Your task to perform on an android device: Open settings on Google Maps Image 0: 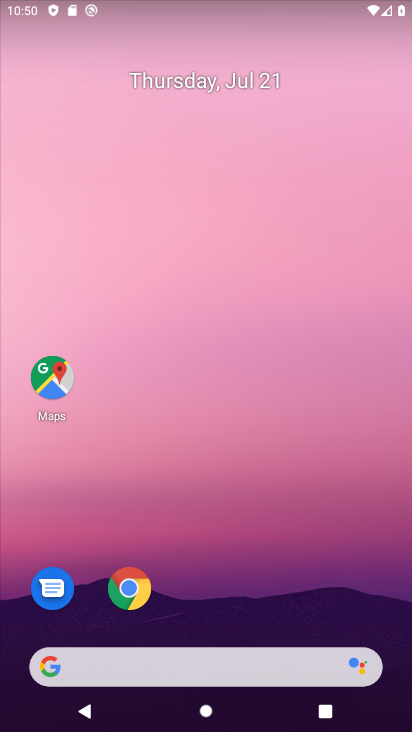
Step 0: drag from (258, 475) to (291, 16)
Your task to perform on an android device: Open settings on Google Maps Image 1: 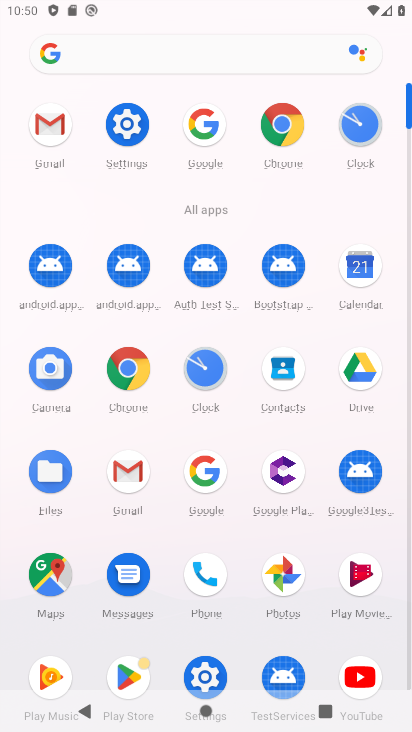
Step 1: click (61, 584)
Your task to perform on an android device: Open settings on Google Maps Image 2: 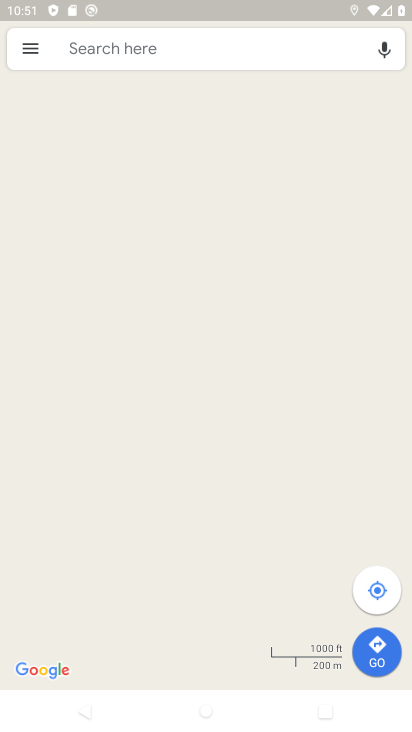
Step 2: click (36, 48)
Your task to perform on an android device: Open settings on Google Maps Image 3: 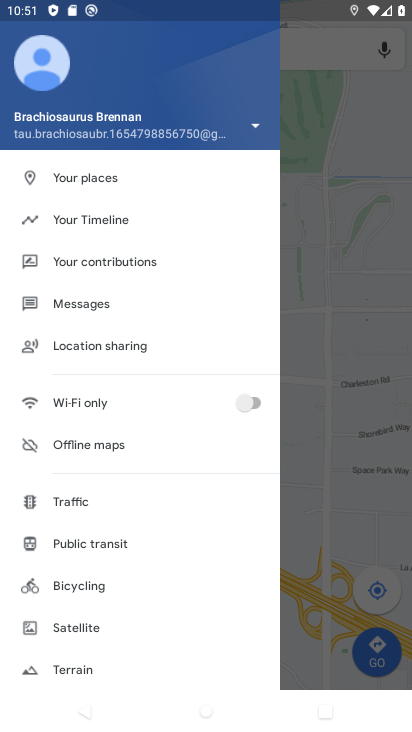
Step 3: drag from (51, 610) to (157, 4)
Your task to perform on an android device: Open settings on Google Maps Image 4: 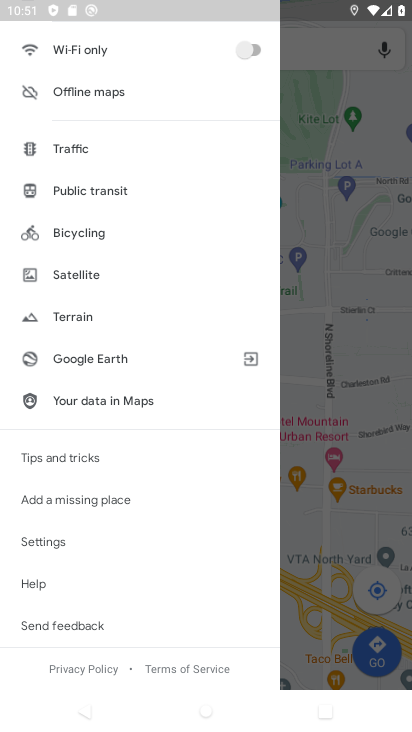
Step 4: click (56, 547)
Your task to perform on an android device: Open settings on Google Maps Image 5: 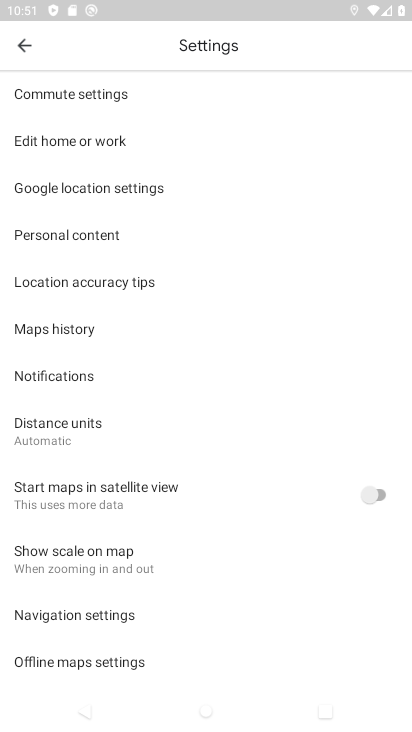
Step 5: task complete